Your task to perform on an android device: Show me the alarms in the clock app Image 0: 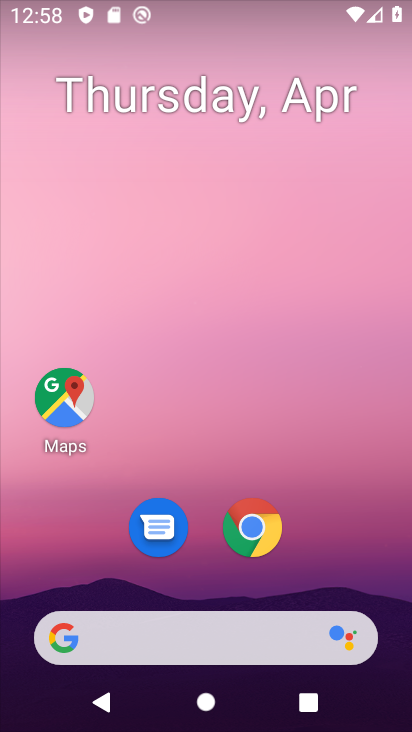
Step 0: drag from (351, 583) to (250, 131)
Your task to perform on an android device: Show me the alarms in the clock app Image 1: 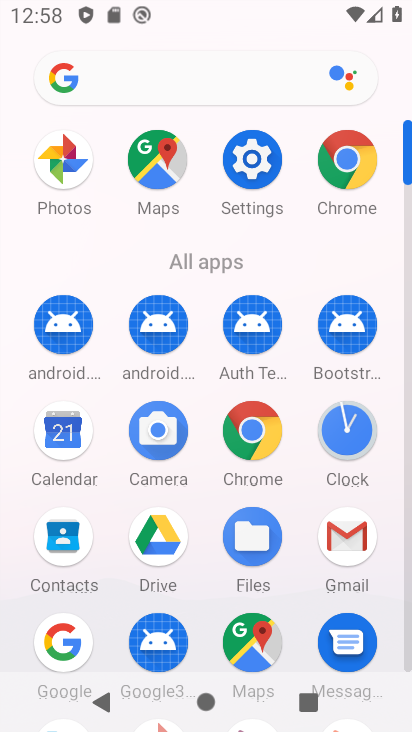
Step 1: click (407, 648)
Your task to perform on an android device: Show me the alarms in the clock app Image 2: 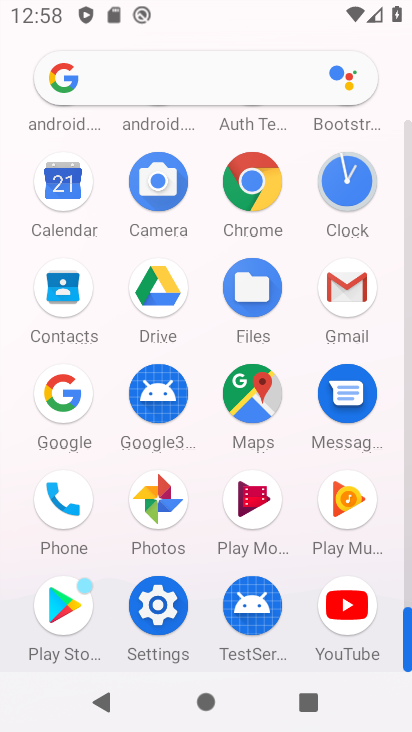
Step 2: click (340, 179)
Your task to perform on an android device: Show me the alarms in the clock app Image 3: 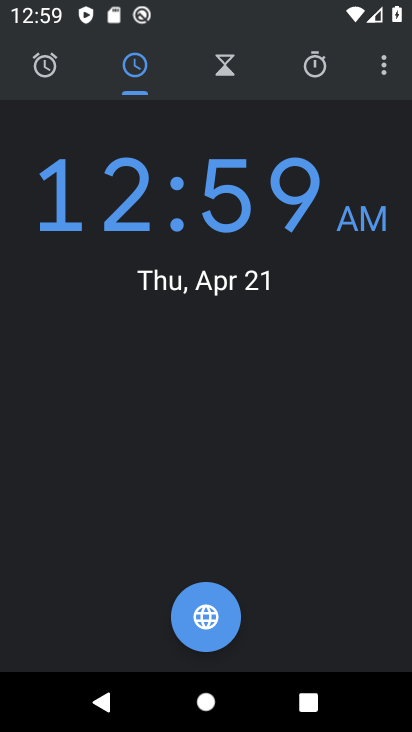
Step 3: click (45, 69)
Your task to perform on an android device: Show me the alarms in the clock app Image 4: 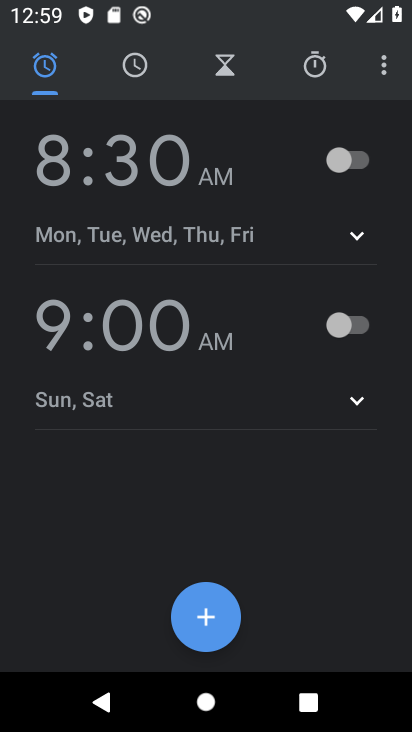
Step 4: task complete